Your task to perform on an android device: Toggle the flashlight Image 0: 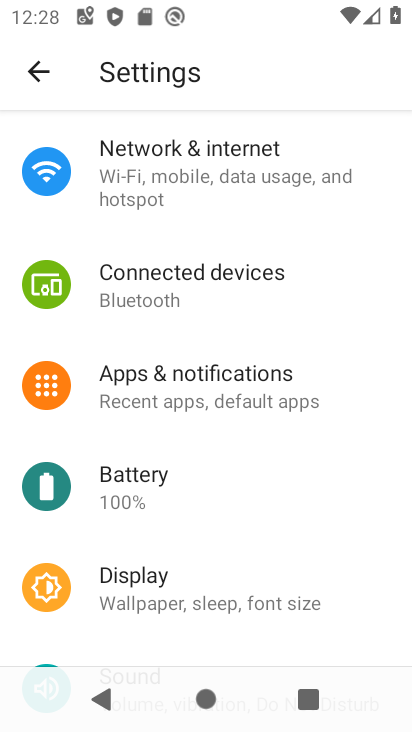
Step 0: drag from (249, 509) to (290, 396)
Your task to perform on an android device: Toggle the flashlight Image 1: 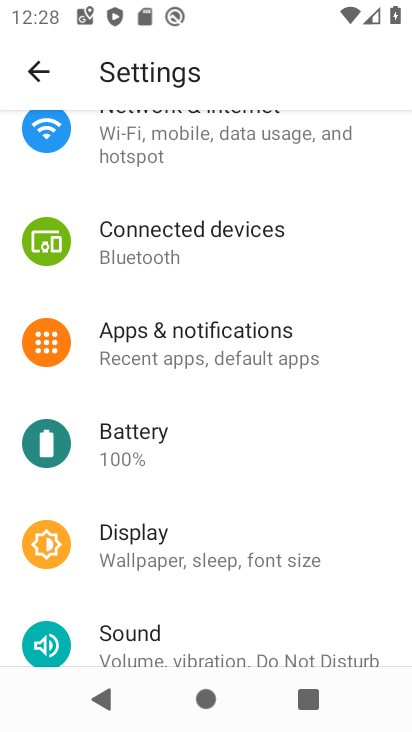
Step 1: click (229, 544)
Your task to perform on an android device: Toggle the flashlight Image 2: 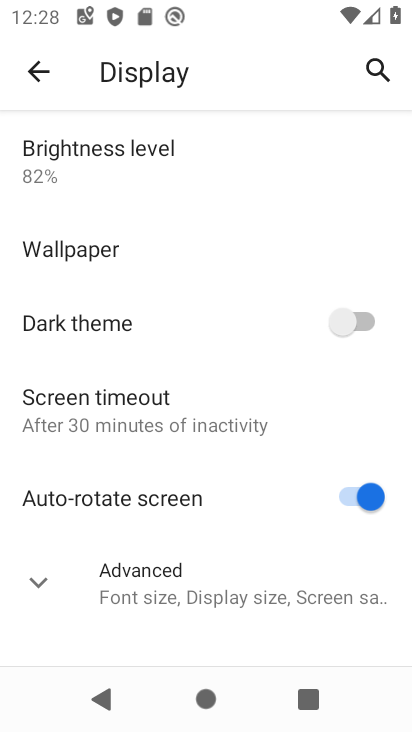
Step 2: click (65, 431)
Your task to perform on an android device: Toggle the flashlight Image 3: 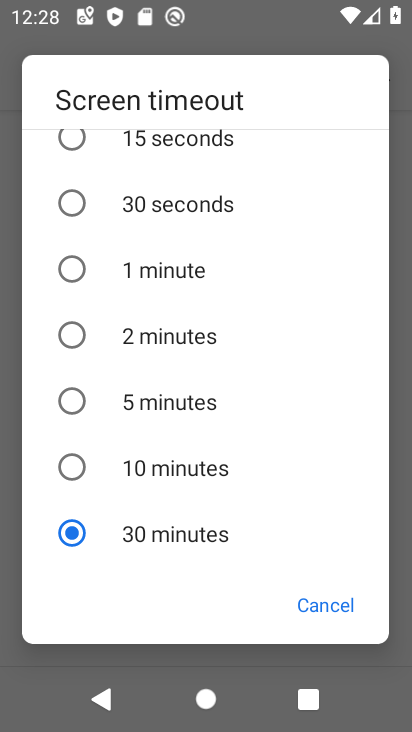
Step 3: click (346, 595)
Your task to perform on an android device: Toggle the flashlight Image 4: 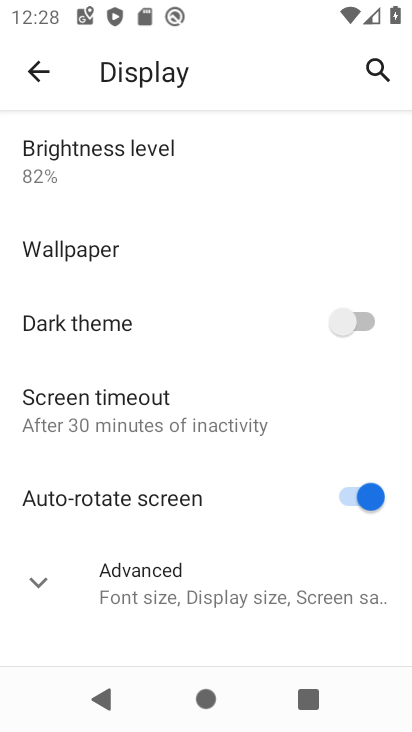
Step 4: press back button
Your task to perform on an android device: Toggle the flashlight Image 5: 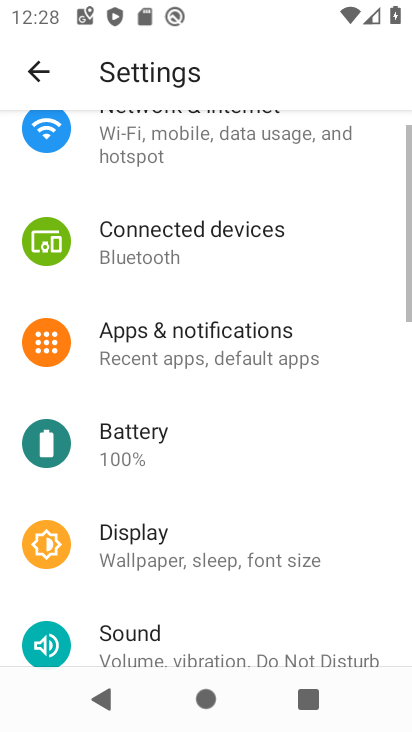
Step 5: drag from (185, 619) to (185, 466)
Your task to perform on an android device: Toggle the flashlight Image 6: 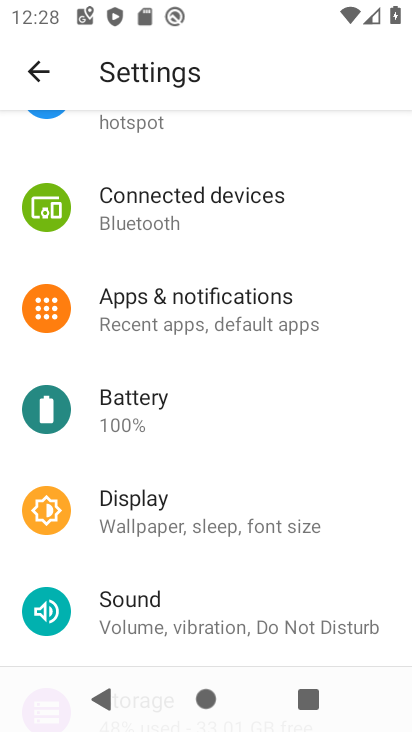
Step 6: drag from (218, 616) to (174, 443)
Your task to perform on an android device: Toggle the flashlight Image 7: 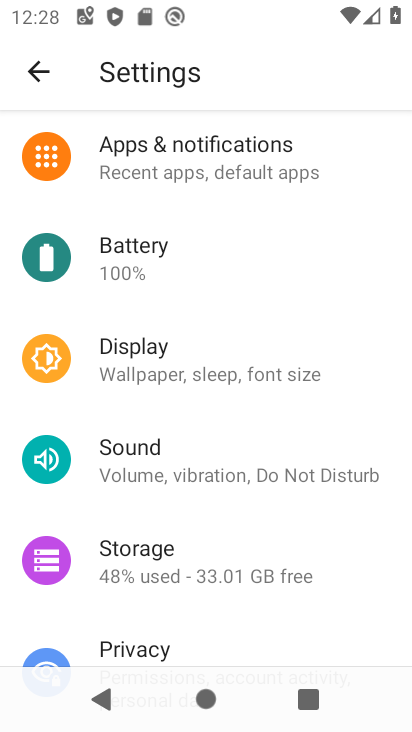
Step 7: drag from (202, 582) to (198, 470)
Your task to perform on an android device: Toggle the flashlight Image 8: 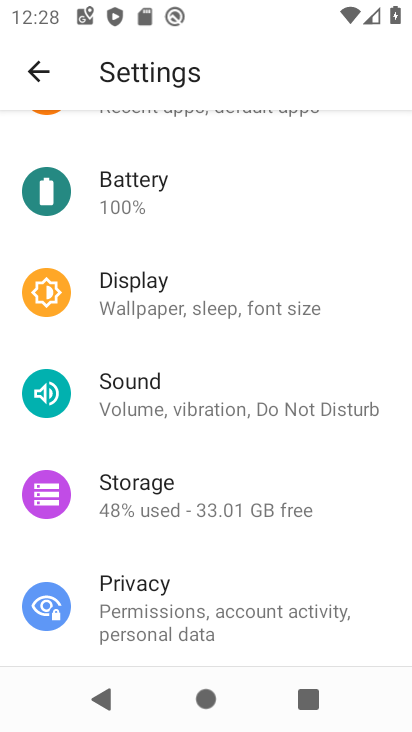
Step 8: drag from (219, 593) to (223, 492)
Your task to perform on an android device: Toggle the flashlight Image 9: 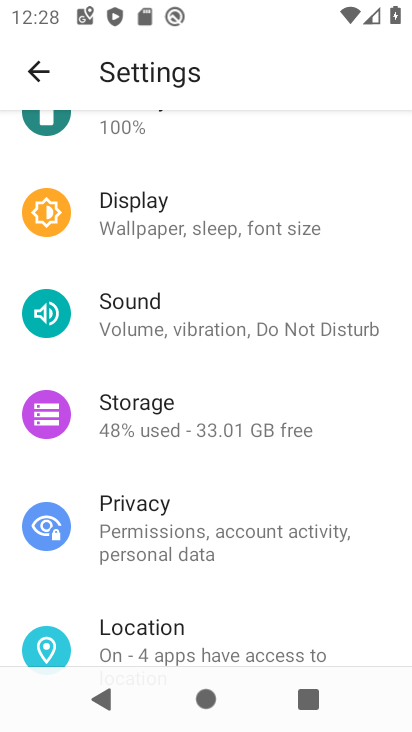
Step 9: drag from (247, 626) to (249, 478)
Your task to perform on an android device: Toggle the flashlight Image 10: 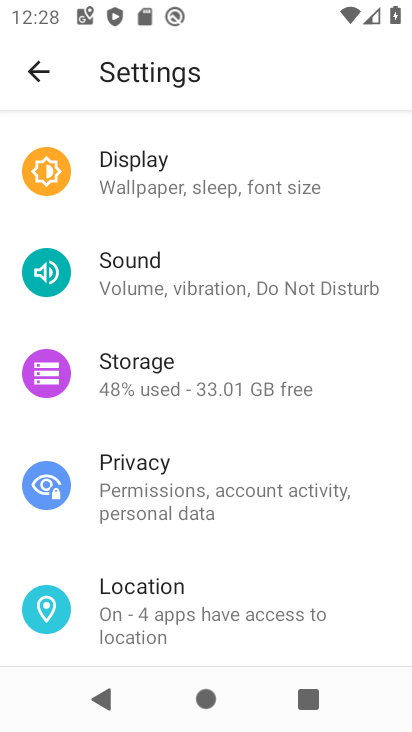
Step 10: drag from (240, 654) to (302, 461)
Your task to perform on an android device: Toggle the flashlight Image 11: 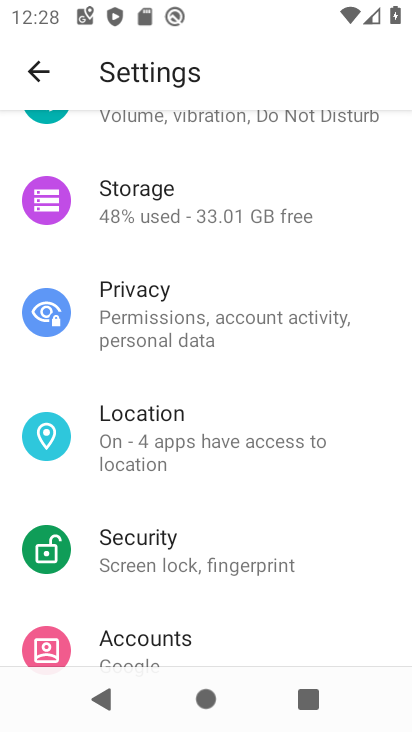
Step 11: drag from (222, 546) to (241, 421)
Your task to perform on an android device: Toggle the flashlight Image 12: 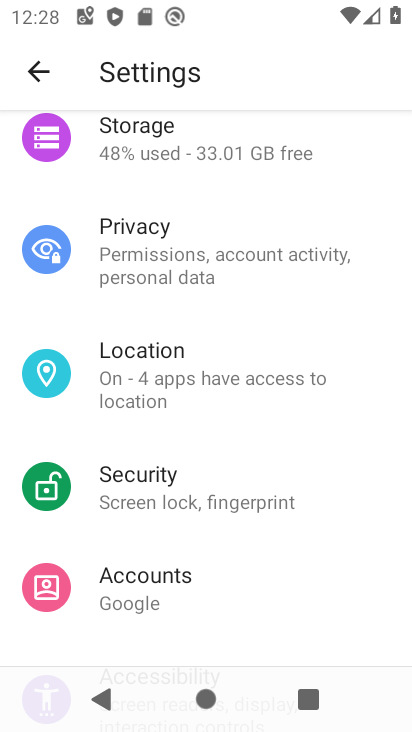
Step 12: click (247, 495)
Your task to perform on an android device: Toggle the flashlight Image 13: 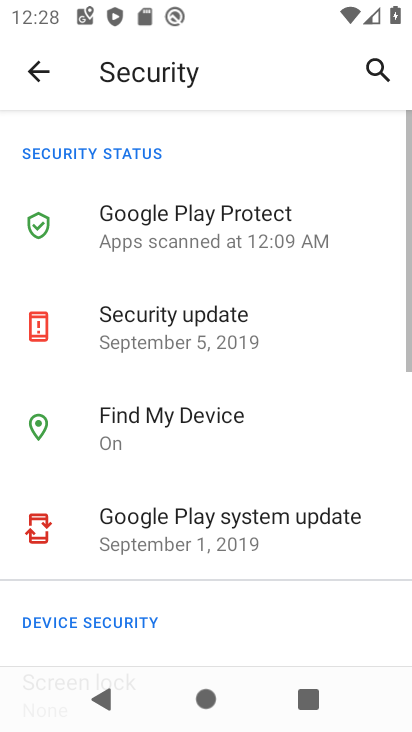
Step 13: drag from (221, 585) to (301, 385)
Your task to perform on an android device: Toggle the flashlight Image 14: 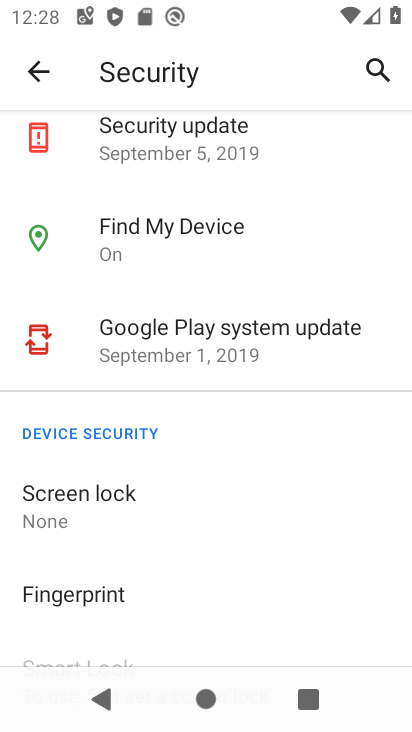
Step 14: drag from (231, 548) to (319, 369)
Your task to perform on an android device: Toggle the flashlight Image 15: 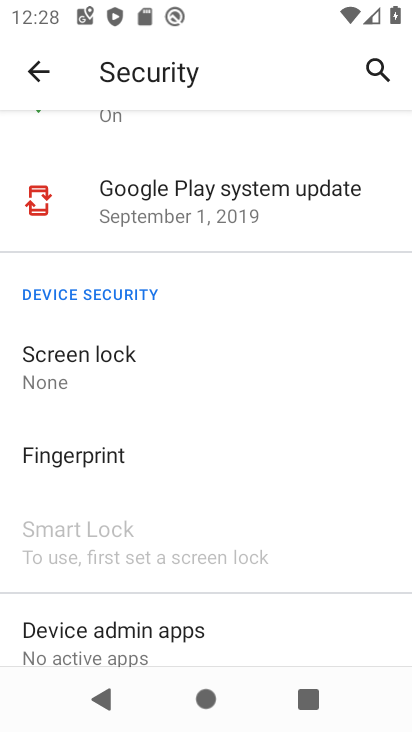
Step 15: drag from (232, 506) to (272, 270)
Your task to perform on an android device: Toggle the flashlight Image 16: 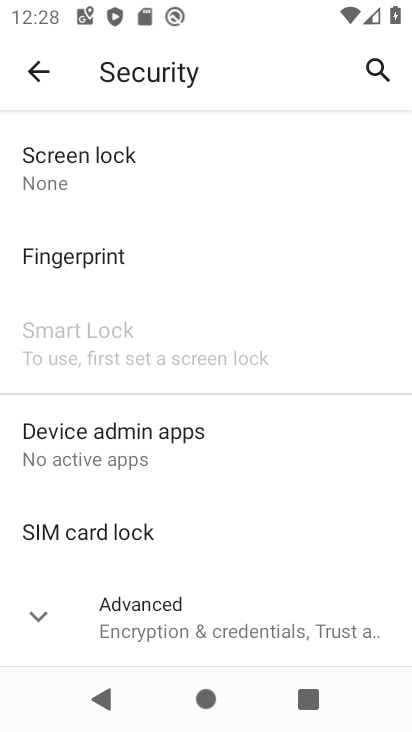
Step 16: click (246, 633)
Your task to perform on an android device: Toggle the flashlight Image 17: 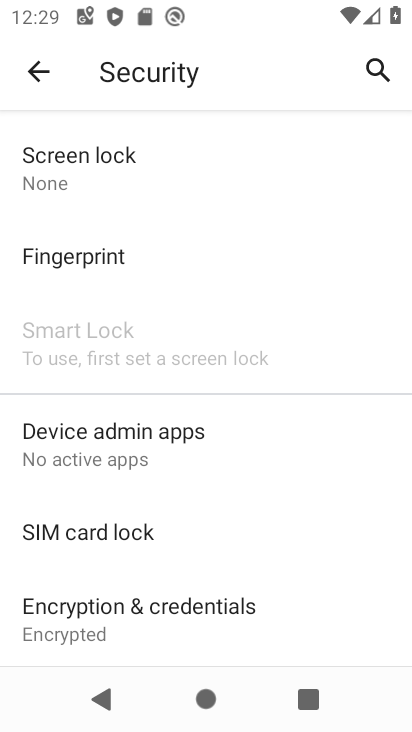
Step 17: drag from (187, 554) to (161, 394)
Your task to perform on an android device: Toggle the flashlight Image 18: 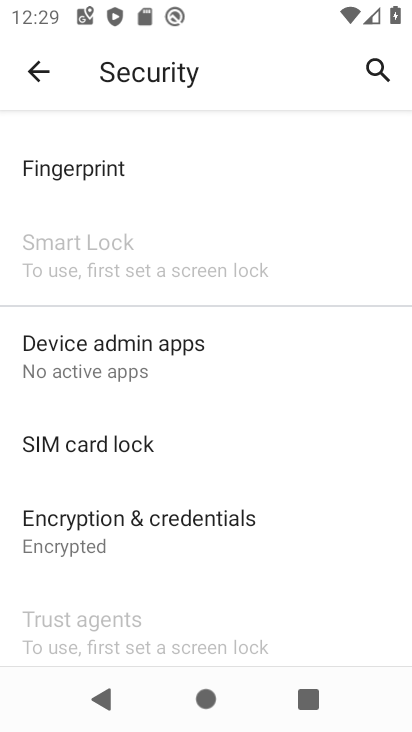
Step 18: drag from (175, 575) to (172, 405)
Your task to perform on an android device: Toggle the flashlight Image 19: 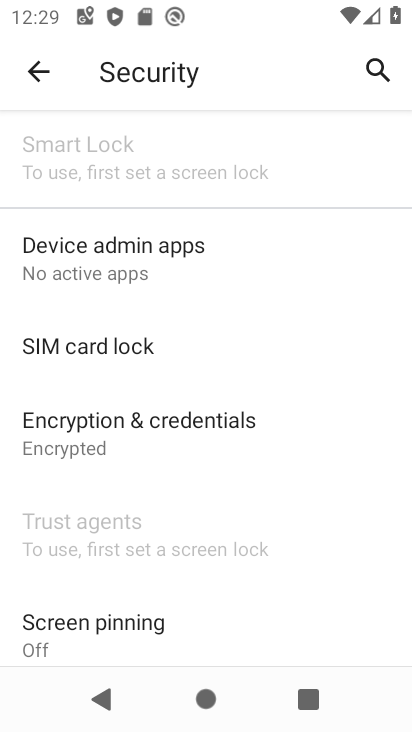
Step 19: drag from (190, 565) to (192, 438)
Your task to perform on an android device: Toggle the flashlight Image 20: 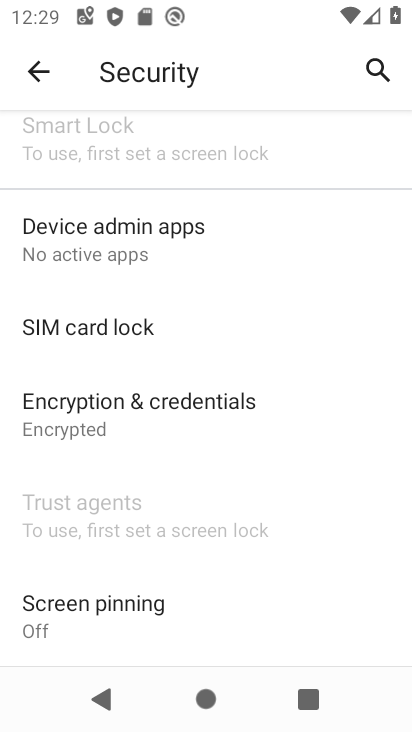
Step 20: drag from (178, 605) to (199, 389)
Your task to perform on an android device: Toggle the flashlight Image 21: 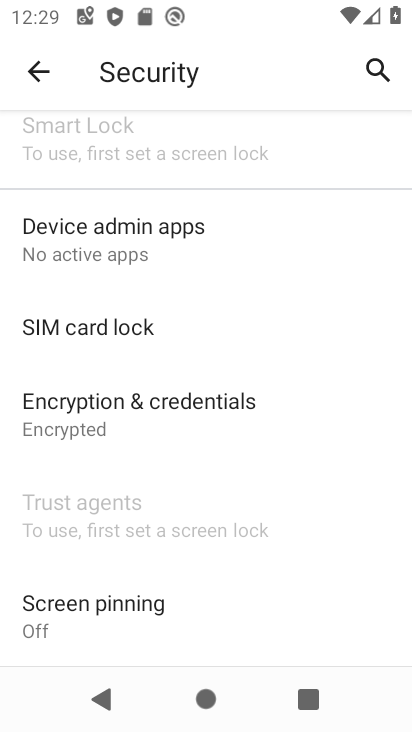
Step 21: press back button
Your task to perform on an android device: Toggle the flashlight Image 22: 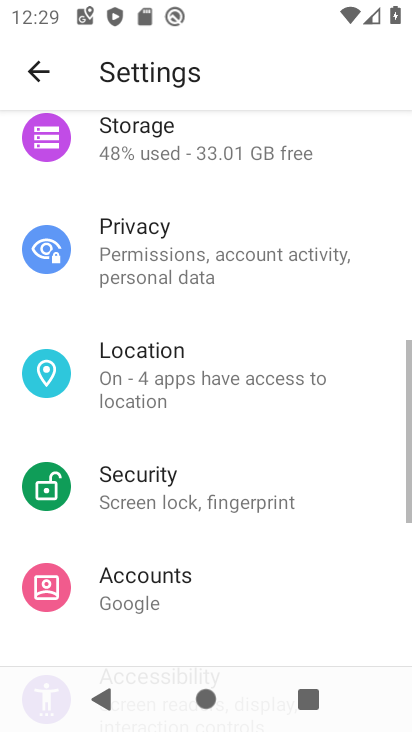
Step 22: drag from (204, 558) to (263, 434)
Your task to perform on an android device: Toggle the flashlight Image 23: 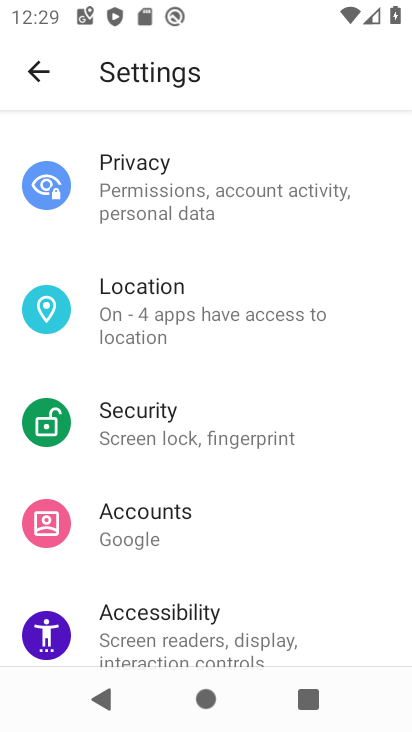
Step 23: drag from (243, 594) to (280, 438)
Your task to perform on an android device: Toggle the flashlight Image 24: 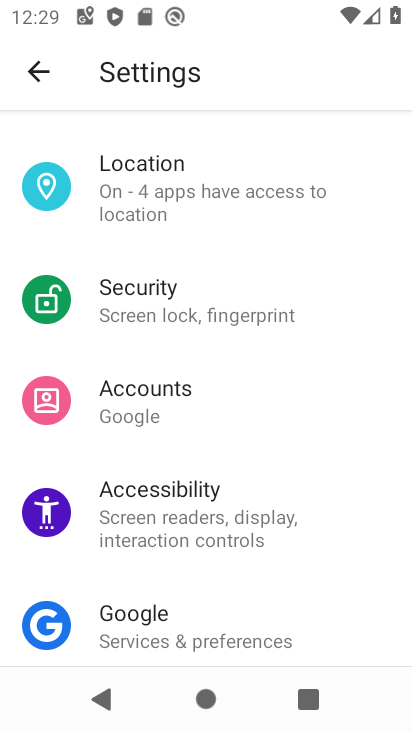
Step 24: click (220, 505)
Your task to perform on an android device: Toggle the flashlight Image 25: 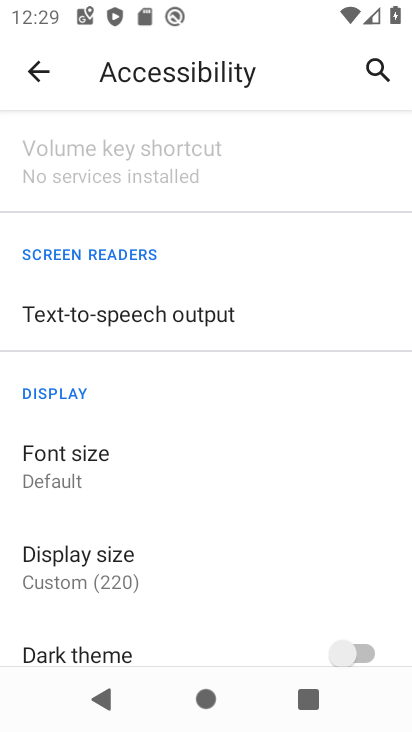
Step 25: click (212, 326)
Your task to perform on an android device: Toggle the flashlight Image 26: 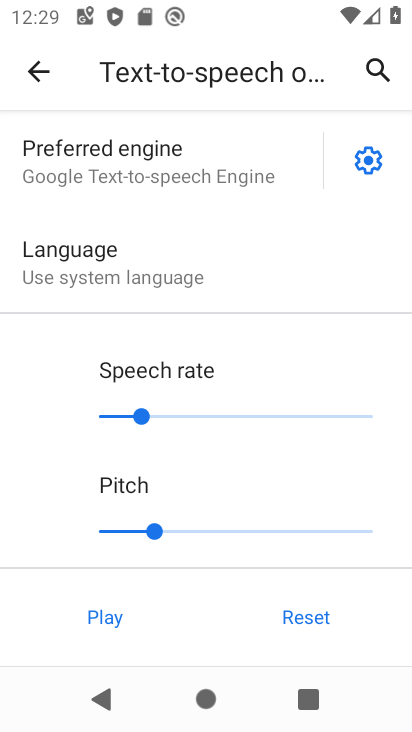
Step 26: drag from (267, 476) to (300, 332)
Your task to perform on an android device: Toggle the flashlight Image 27: 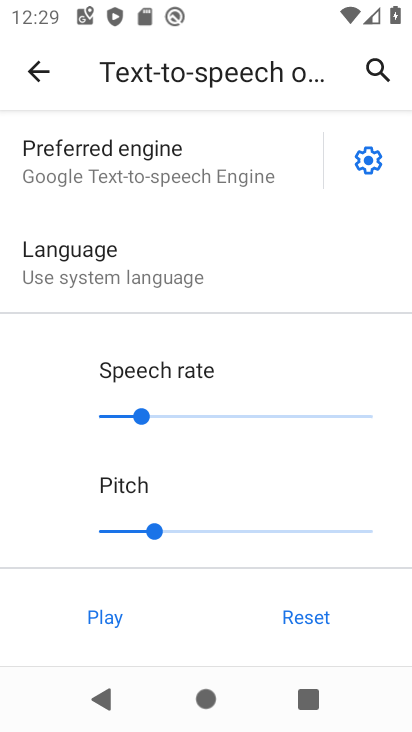
Step 27: click (368, 161)
Your task to perform on an android device: Toggle the flashlight Image 28: 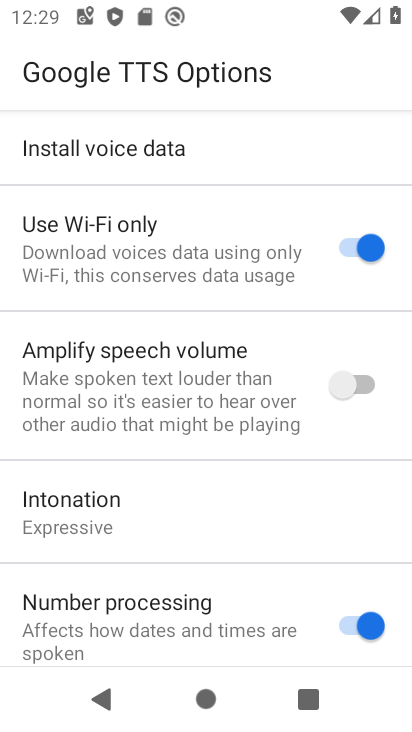
Step 28: task complete